Your task to perform on an android device: check the backup settings in the google photos Image 0: 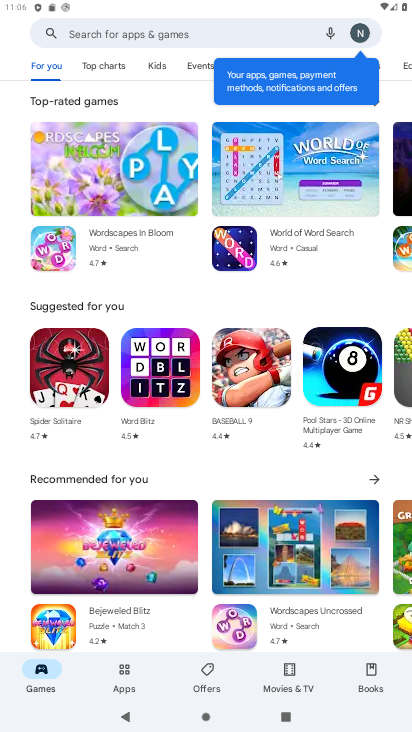
Step 0: press home button
Your task to perform on an android device: check the backup settings in the google photos Image 1: 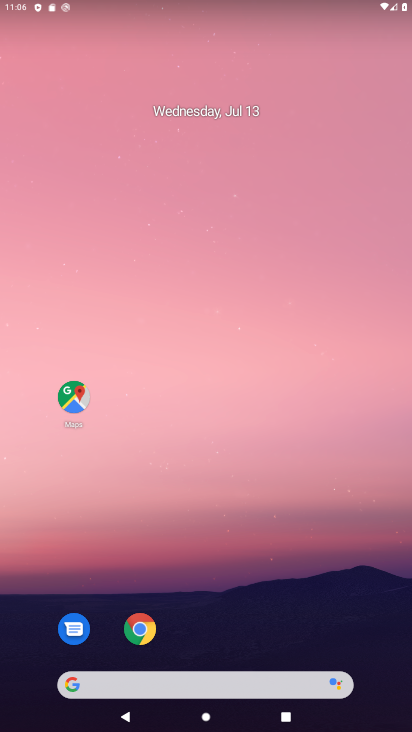
Step 1: drag from (267, 552) to (329, 101)
Your task to perform on an android device: check the backup settings in the google photos Image 2: 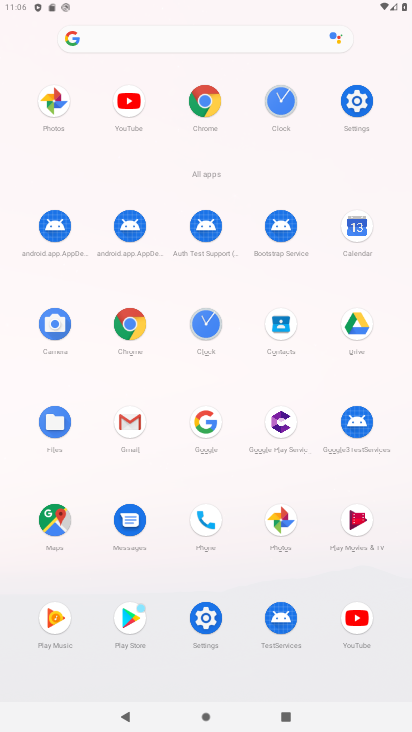
Step 2: click (274, 521)
Your task to perform on an android device: check the backup settings in the google photos Image 3: 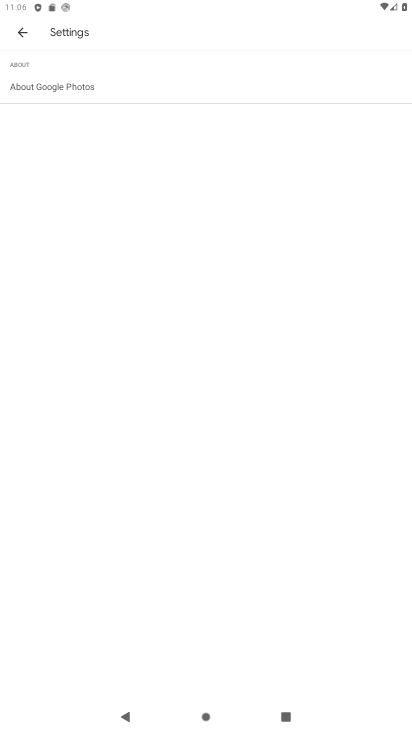
Step 3: press back button
Your task to perform on an android device: check the backup settings in the google photos Image 4: 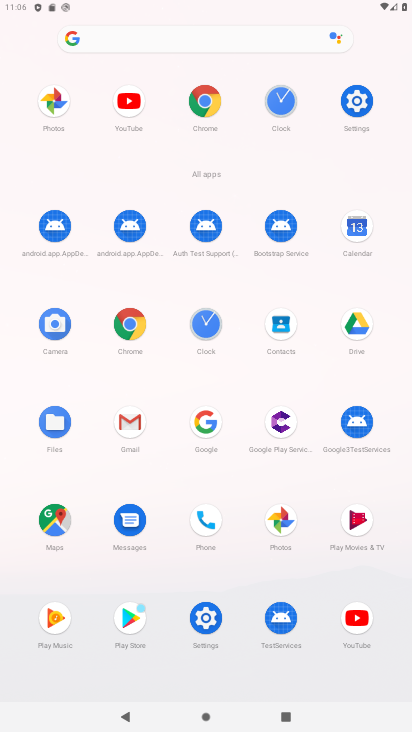
Step 4: click (274, 526)
Your task to perform on an android device: check the backup settings in the google photos Image 5: 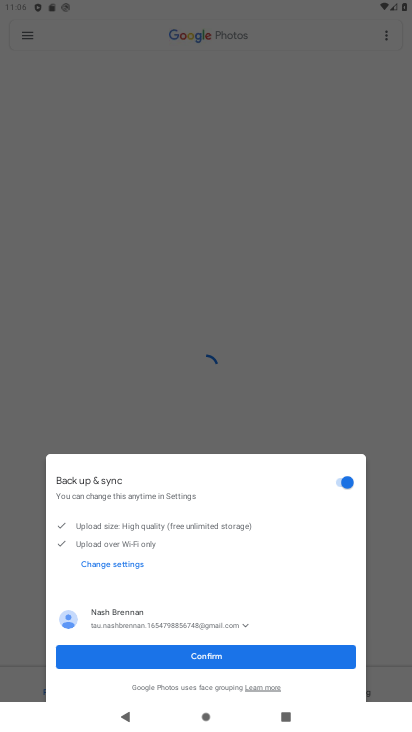
Step 5: click (211, 662)
Your task to perform on an android device: check the backup settings in the google photos Image 6: 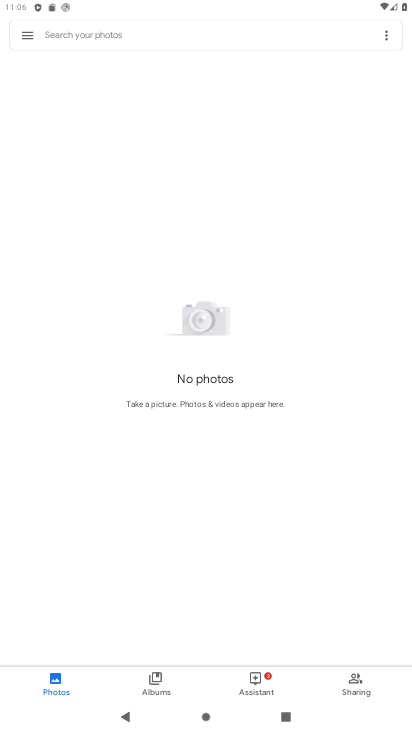
Step 6: click (39, 35)
Your task to perform on an android device: check the backup settings in the google photos Image 7: 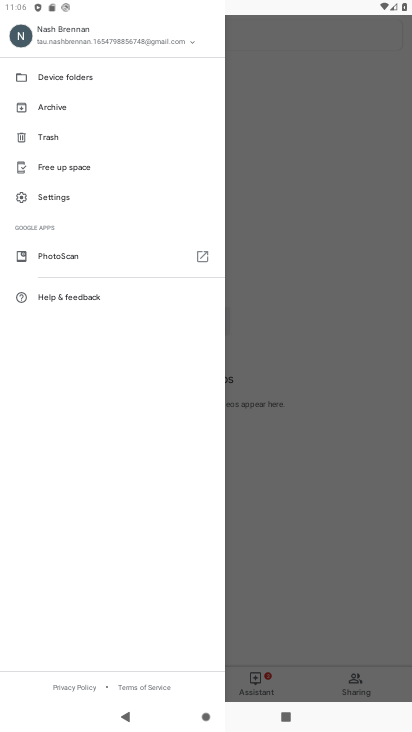
Step 7: click (72, 199)
Your task to perform on an android device: check the backup settings in the google photos Image 8: 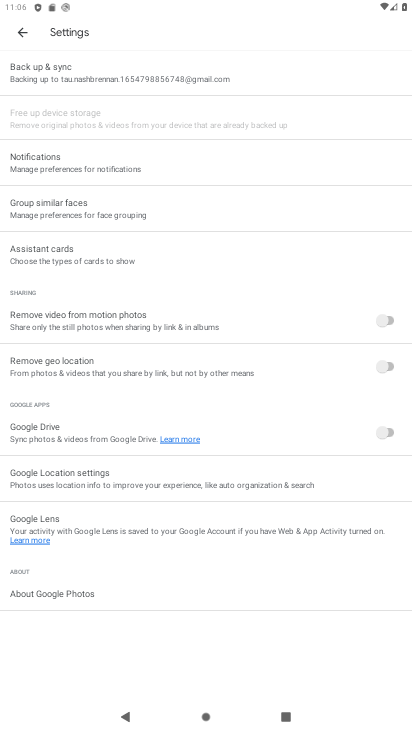
Step 8: click (103, 77)
Your task to perform on an android device: check the backup settings in the google photos Image 9: 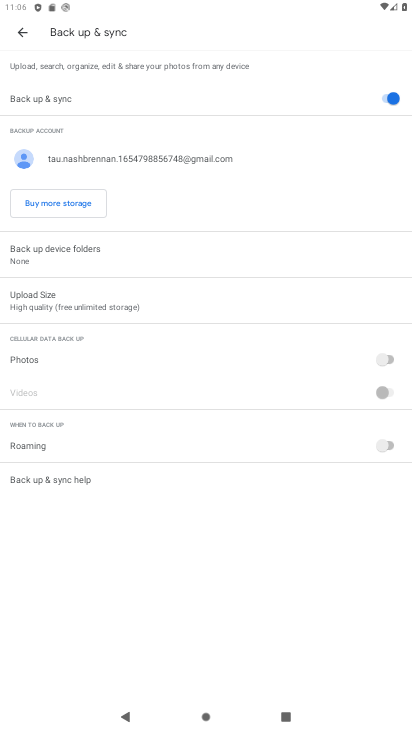
Step 9: task complete